Your task to perform on an android device: change the clock display to analog Image 0: 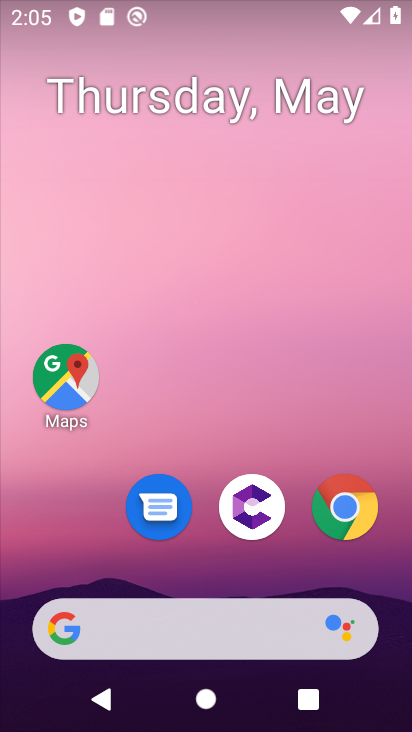
Step 0: press home button
Your task to perform on an android device: change the clock display to analog Image 1: 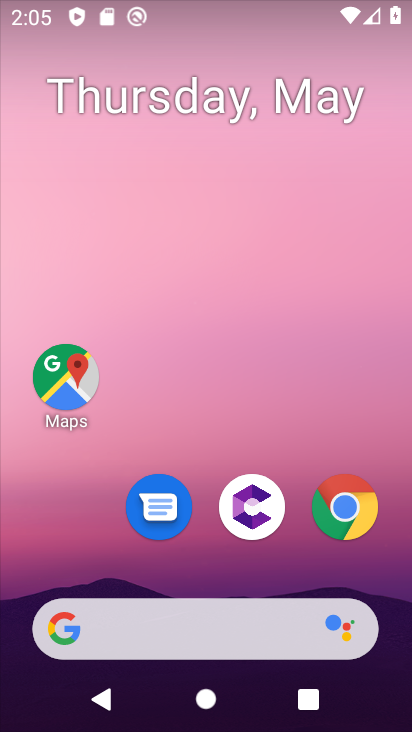
Step 1: drag from (280, 574) to (218, 88)
Your task to perform on an android device: change the clock display to analog Image 2: 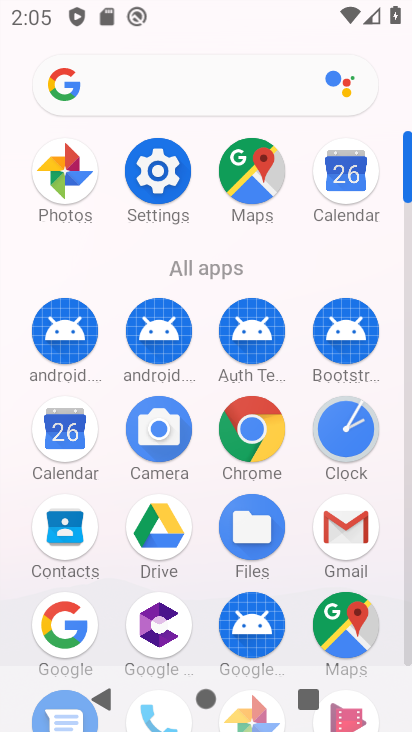
Step 2: click (374, 452)
Your task to perform on an android device: change the clock display to analog Image 3: 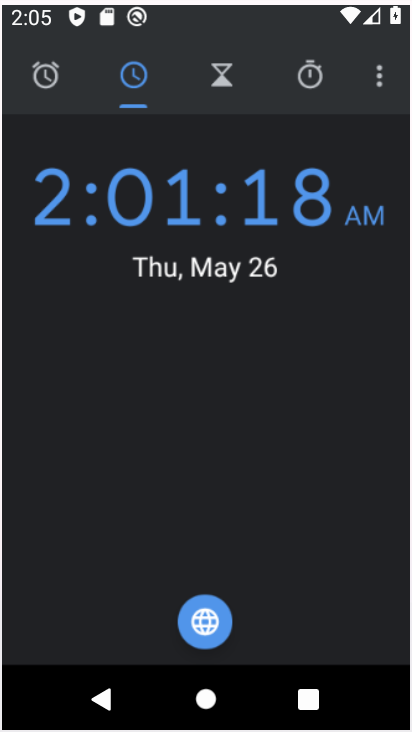
Step 3: click (364, 441)
Your task to perform on an android device: change the clock display to analog Image 4: 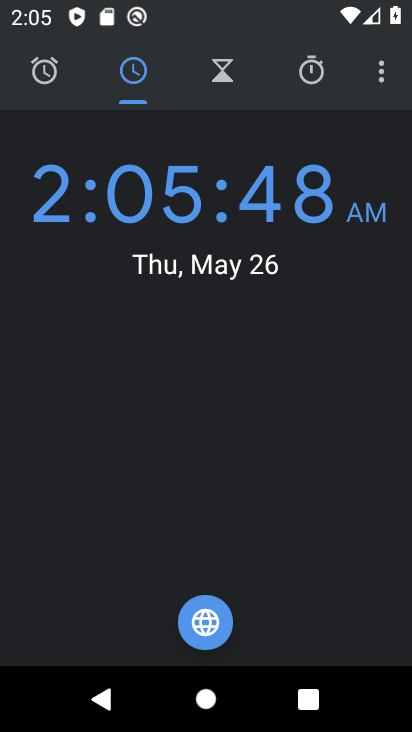
Step 4: click (374, 78)
Your task to perform on an android device: change the clock display to analog Image 5: 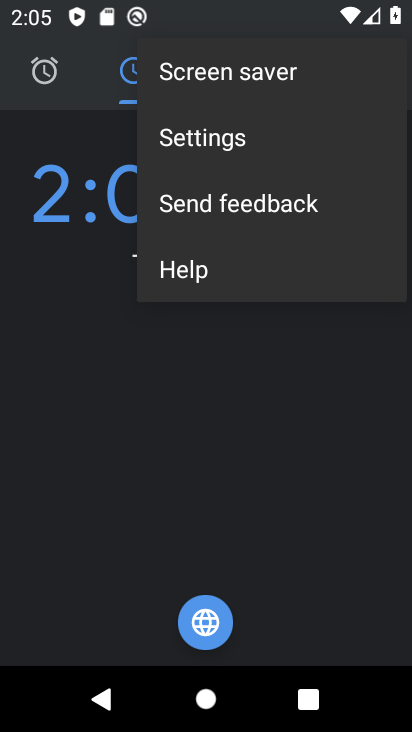
Step 5: click (238, 148)
Your task to perform on an android device: change the clock display to analog Image 6: 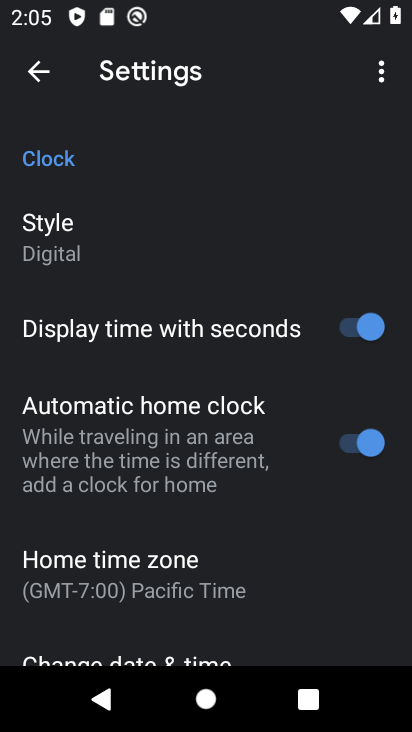
Step 6: click (33, 242)
Your task to perform on an android device: change the clock display to analog Image 7: 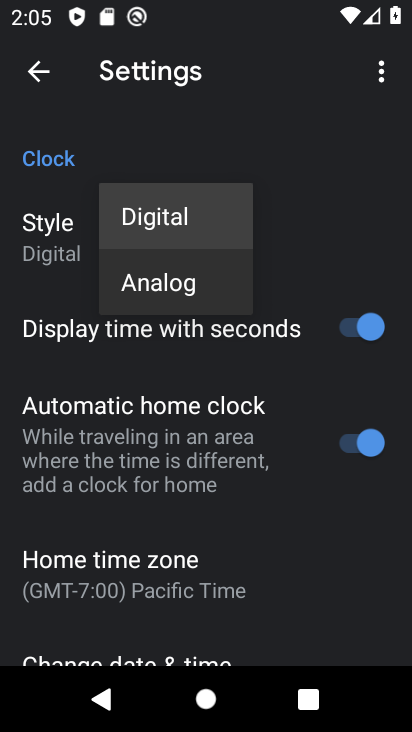
Step 7: click (163, 287)
Your task to perform on an android device: change the clock display to analog Image 8: 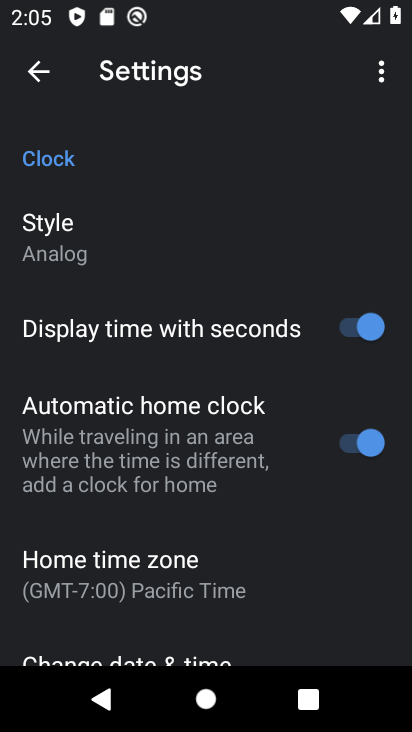
Step 8: task complete